Your task to perform on an android device: Show me recent news Image 0: 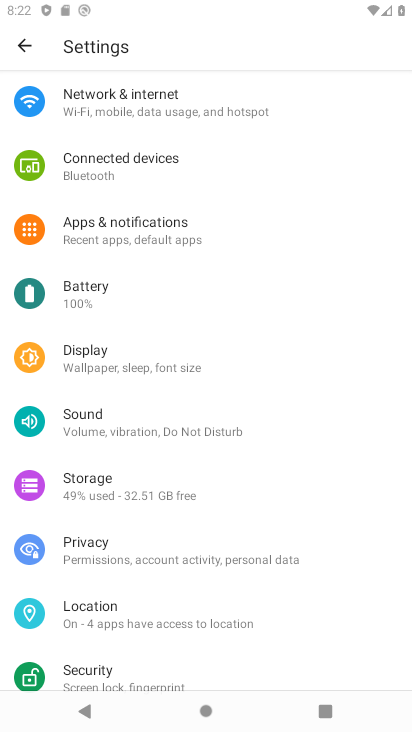
Step 0: press home button
Your task to perform on an android device: Show me recent news Image 1: 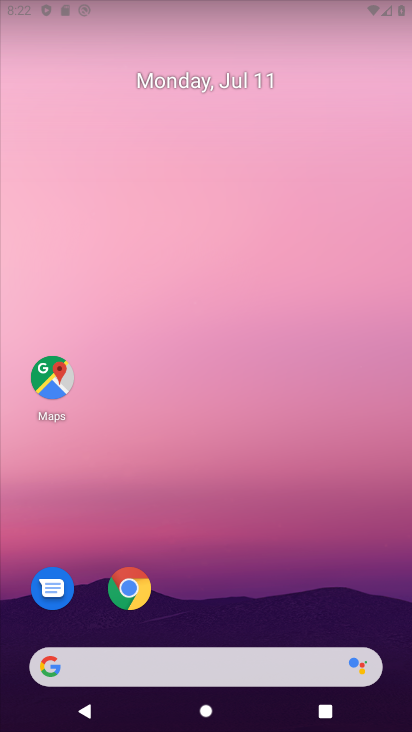
Step 1: drag from (157, 706) to (274, 2)
Your task to perform on an android device: Show me recent news Image 2: 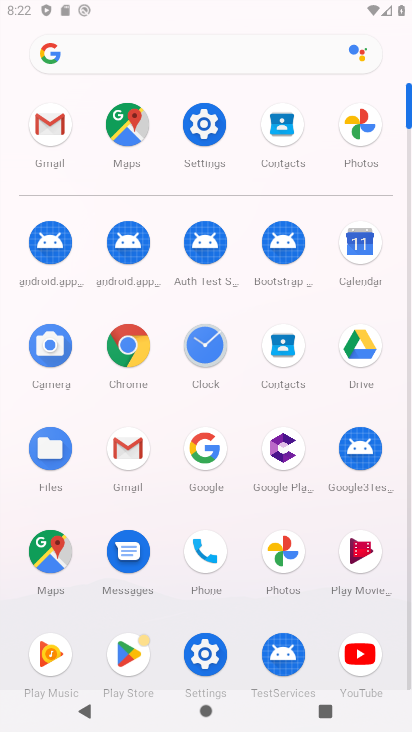
Step 2: click (209, 52)
Your task to perform on an android device: Show me recent news Image 3: 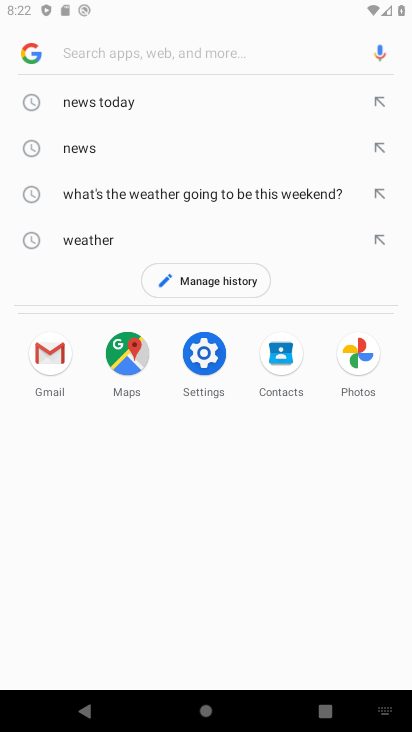
Step 3: type "recent news"
Your task to perform on an android device: Show me recent news Image 4: 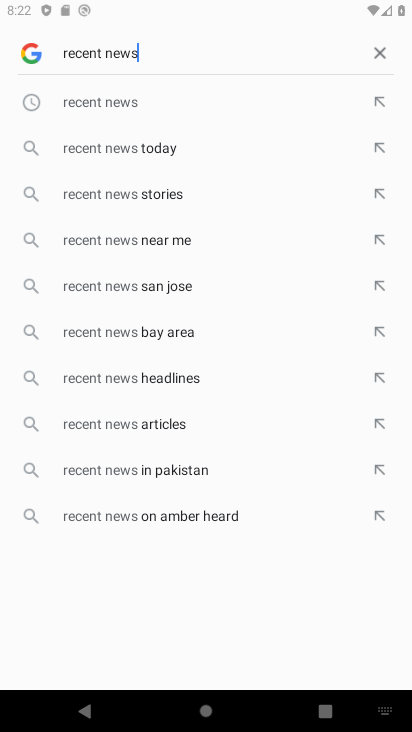
Step 4: click (153, 104)
Your task to perform on an android device: Show me recent news Image 5: 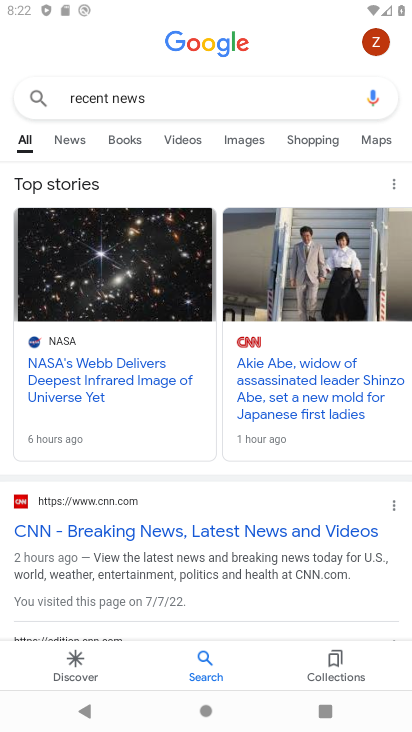
Step 5: task complete